Your task to perform on an android device: Open wifi settings Image 0: 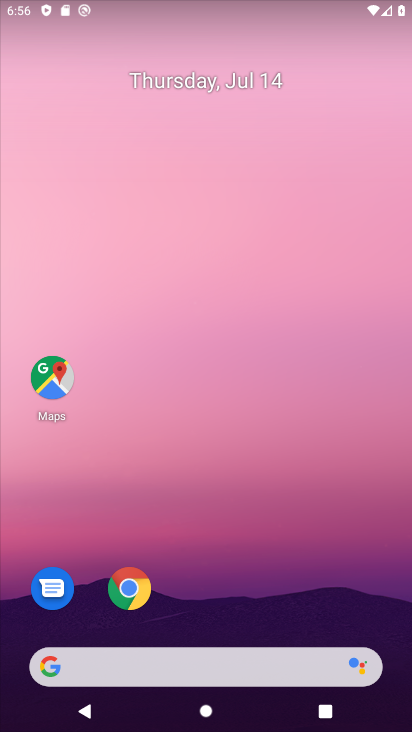
Step 0: drag from (400, 636) to (297, 10)
Your task to perform on an android device: Open wifi settings Image 1: 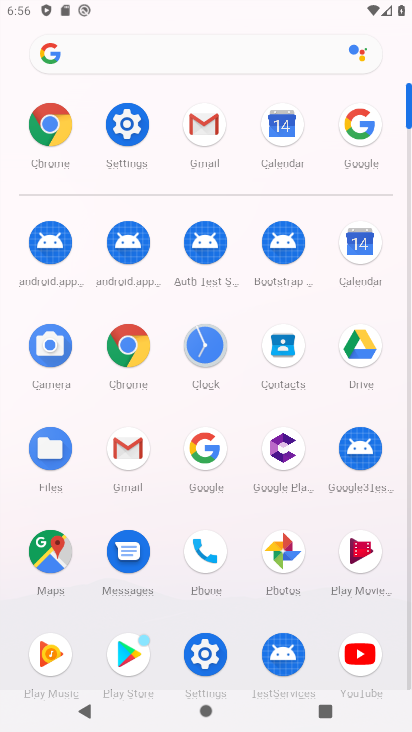
Step 1: click (204, 669)
Your task to perform on an android device: Open wifi settings Image 2: 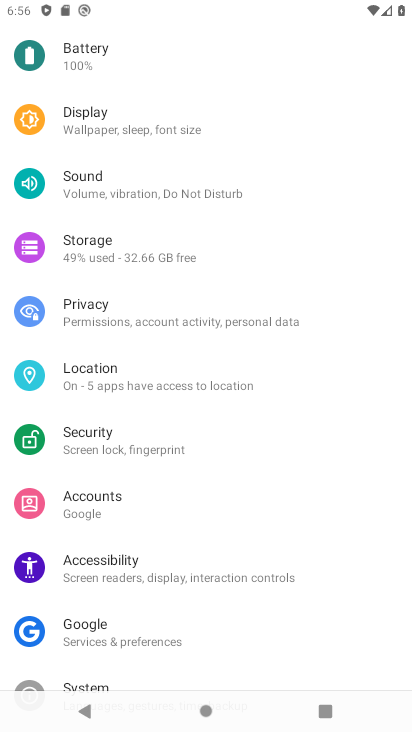
Step 2: drag from (61, 161) to (113, 576)
Your task to perform on an android device: Open wifi settings Image 3: 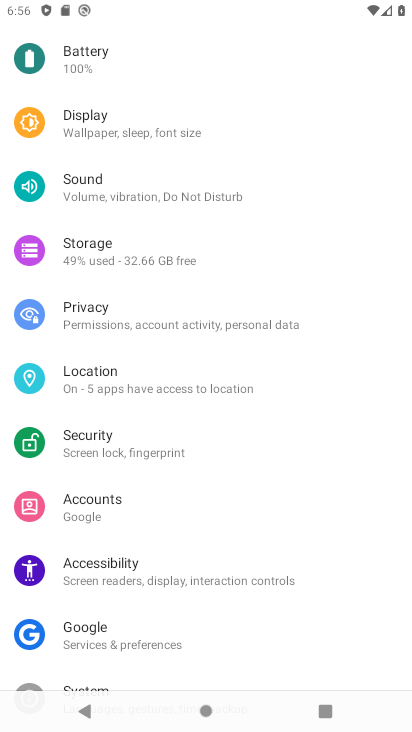
Step 3: drag from (124, 137) to (170, 676)
Your task to perform on an android device: Open wifi settings Image 4: 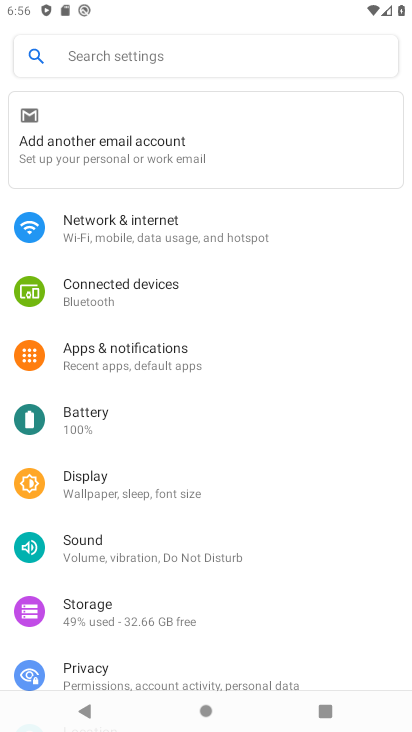
Step 4: drag from (156, 81) to (136, 585)
Your task to perform on an android device: Open wifi settings Image 5: 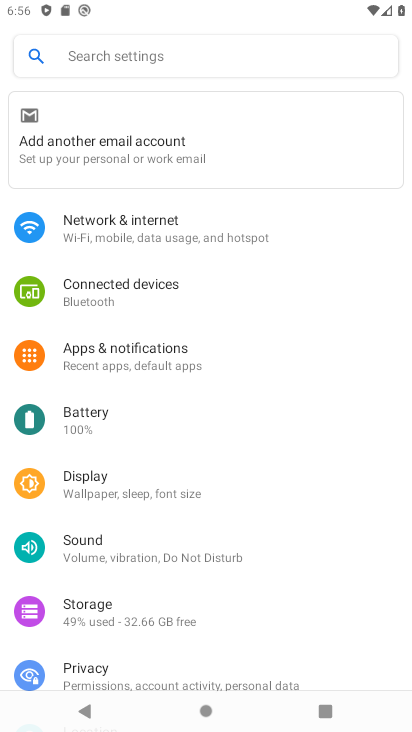
Step 5: click (90, 235)
Your task to perform on an android device: Open wifi settings Image 6: 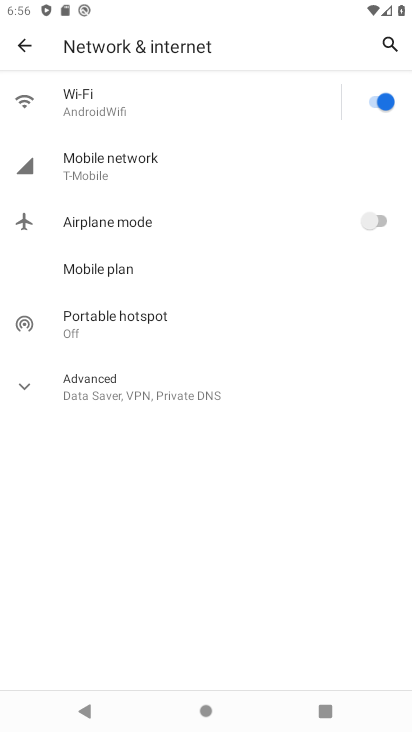
Step 6: click (150, 103)
Your task to perform on an android device: Open wifi settings Image 7: 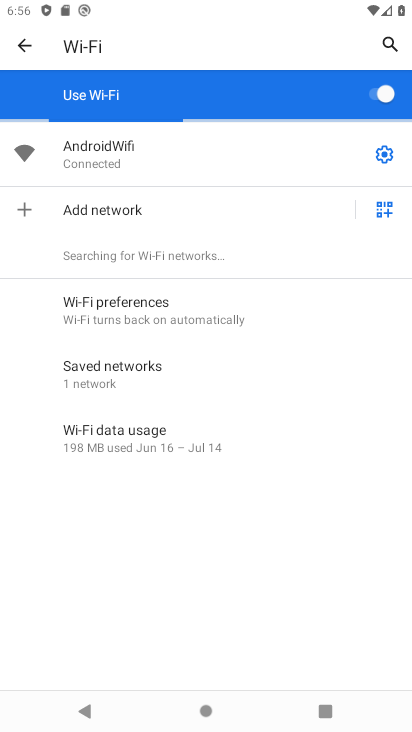
Step 7: task complete